Your task to perform on an android device: Search for seafood restaurants on Google Maps Image 0: 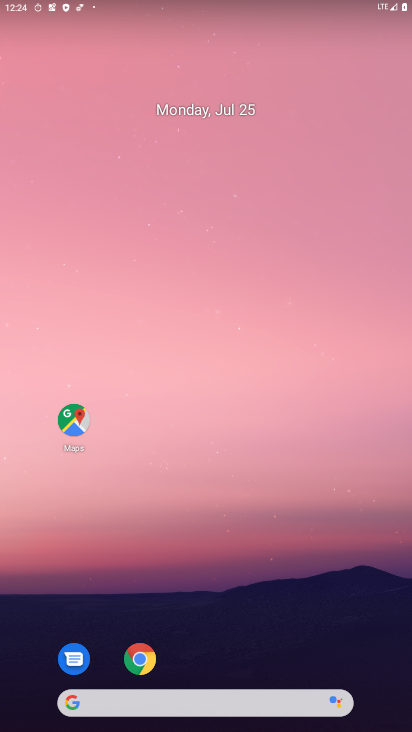
Step 0: click (76, 430)
Your task to perform on an android device: Search for seafood restaurants on Google Maps Image 1: 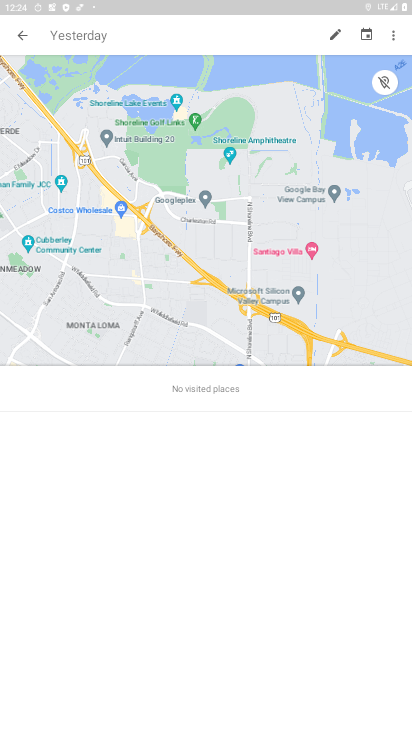
Step 1: click (12, 41)
Your task to perform on an android device: Search for seafood restaurants on Google Maps Image 2: 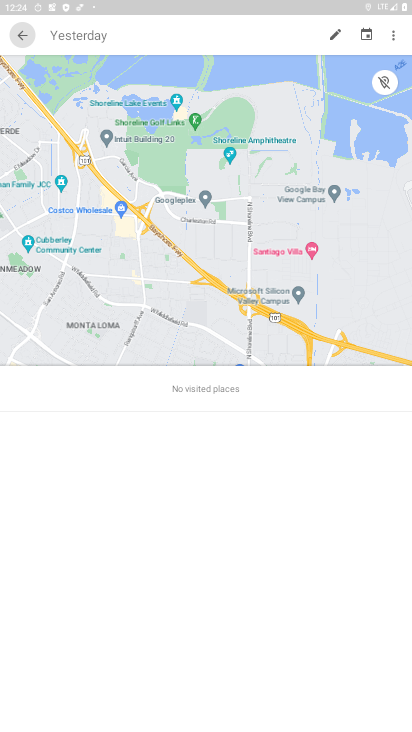
Step 2: click (15, 36)
Your task to perform on an android device: Search for seafood restaurants on Google Maps Image 3: 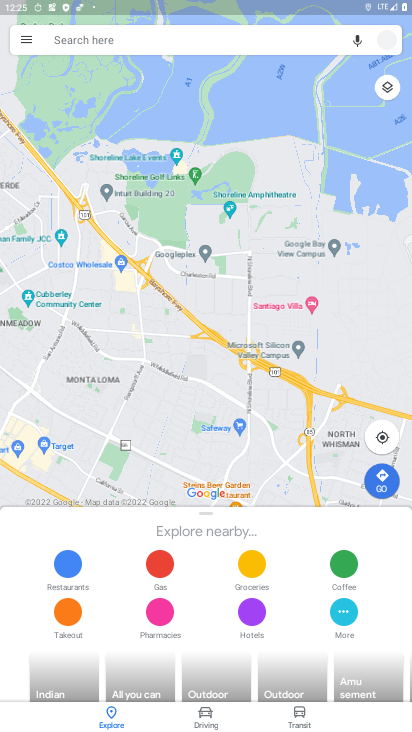
Step 3: click (75, 41)
Your task to perform on an android device: Search for seafood restaurants on Google Maps Image 4: 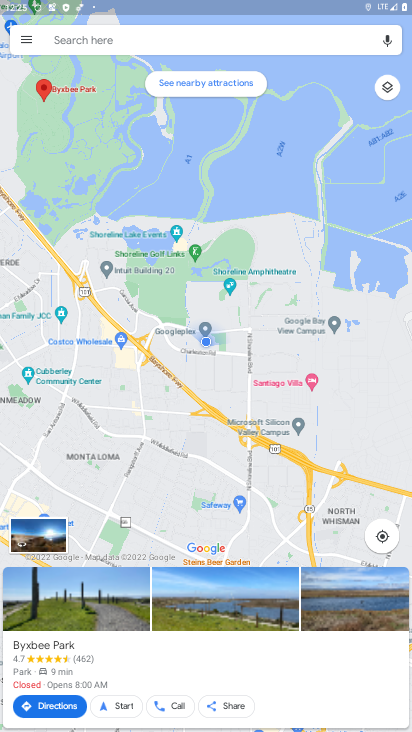
Step 4: click (74, 37)
Your task to perform on an android device: Search for seafood restaurants on Google Maps Image 5: 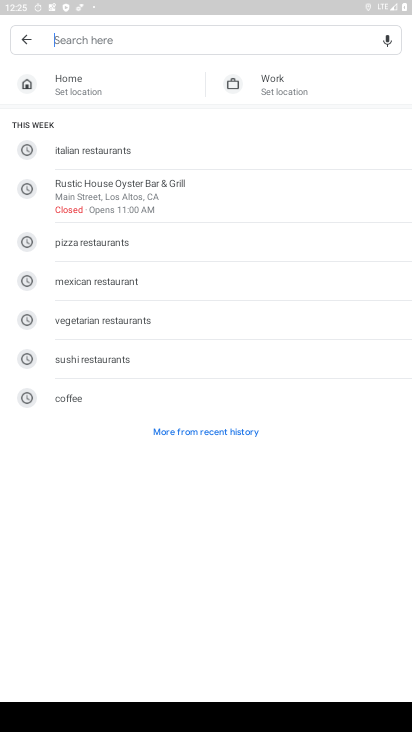
Step 5: type " seafood restaurants"
Your task to perform on an android device: Search for seafood restaurants on Google Maps Image 6: 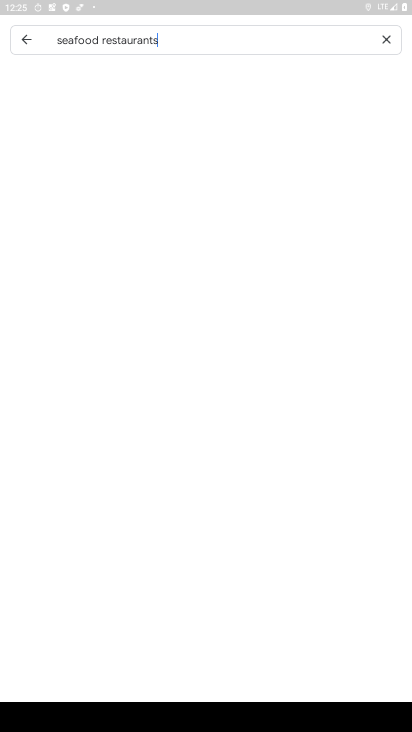
Step 6: type ""
Your task to perform on an android device: Search for seafood restaurants on Google Maps Image 7: 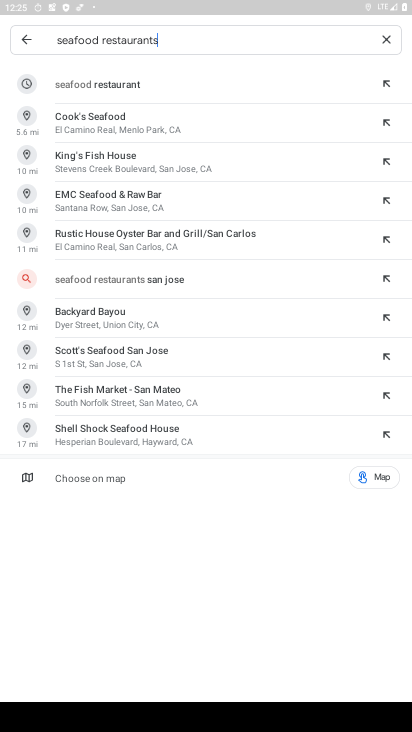
Step 7: click (111, 86)
Your task to perform on an android device: Search for seafood restaurants on Google Maps Image 8: 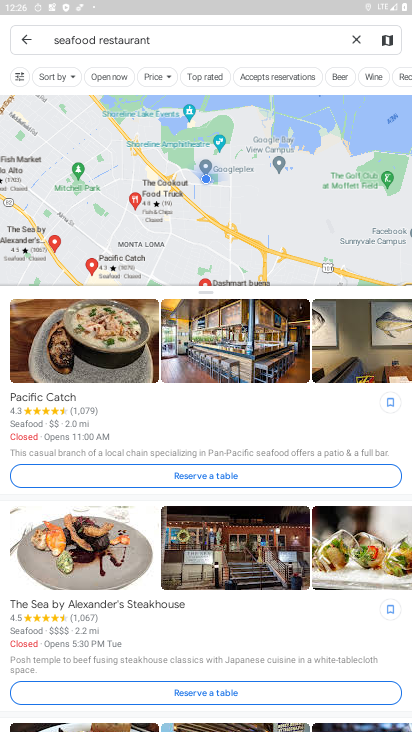
Step 8: task complete